Your task to perform on an android device: turn notification dots off Image 0: 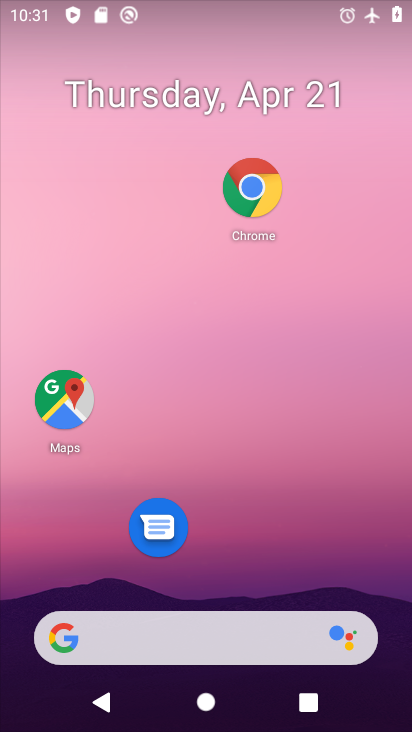
Step 0: drag from (284, 597) to (327, 148)
Your task to perform on an android device: turn notification dots off Image 1: 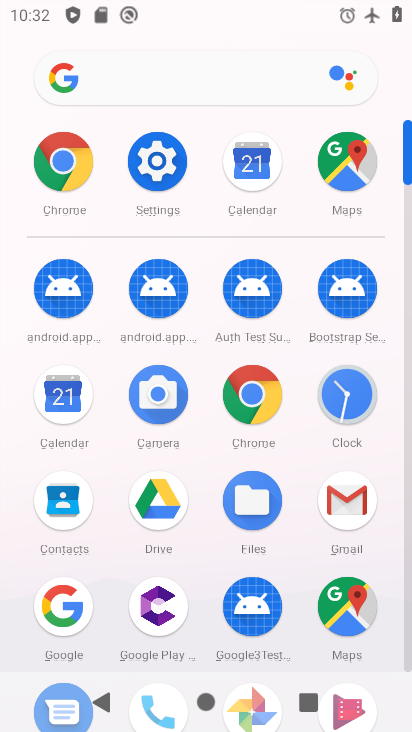
Step 1: click (150, 177)
Your task to perform on an android device: turn notification dots off Image 2: 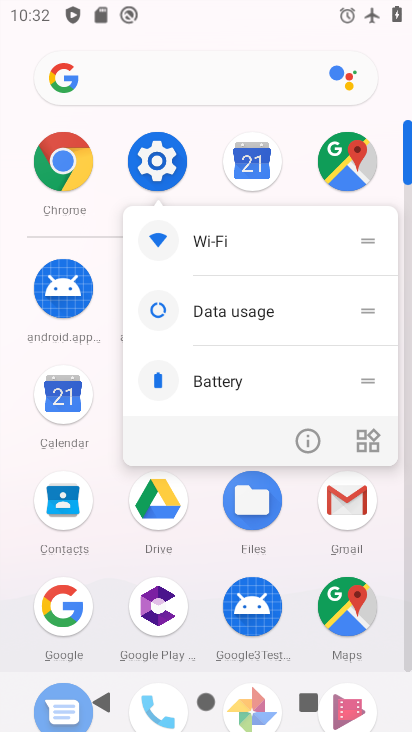
Step 2: click (150, 177)
Your task to perform on an android device: turn notification dots off Image 3: 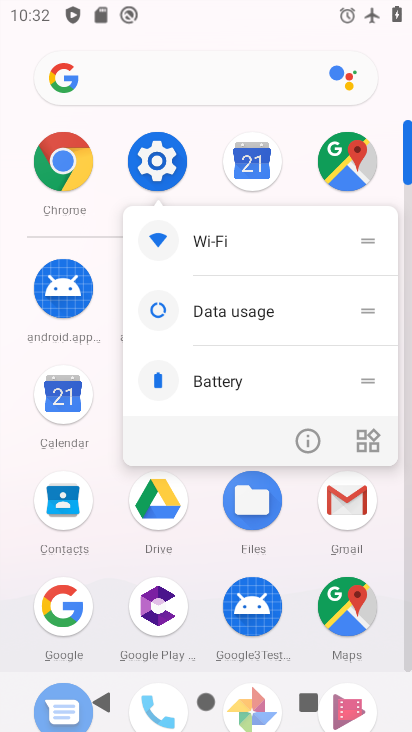
Step 3: click (172, 159)
Your task to perform on an android device: turn notification dots off Image 4: 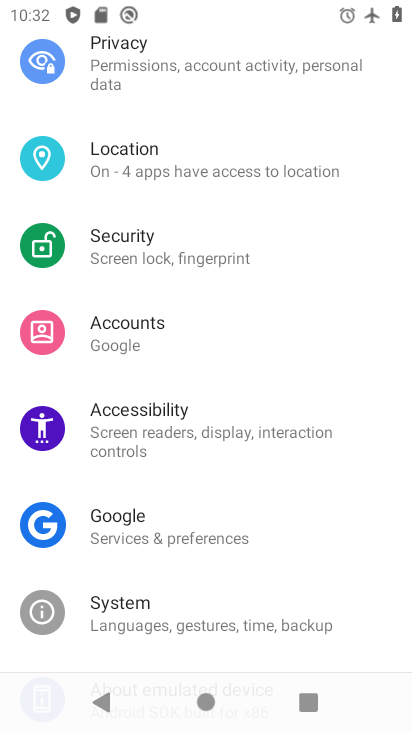
Step 4: drag from (317, 223) to (293, 511)
Your task to perform on an android device: turn notification dots off Image 5: 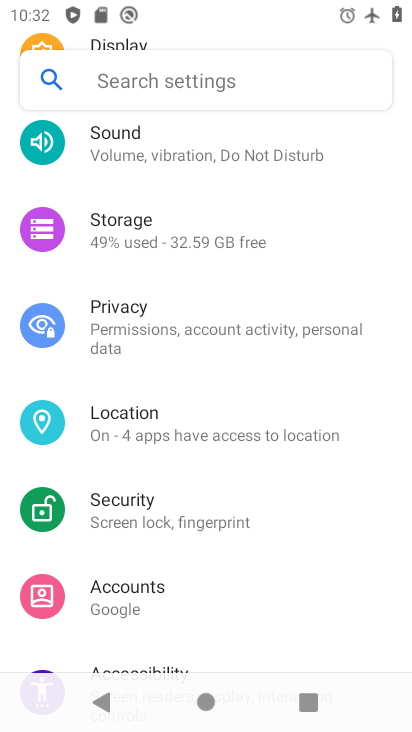
Step 5: drag from (302, 235) to (267, 471)
Your task to perform on an android device: turn notification dots off Image 6: 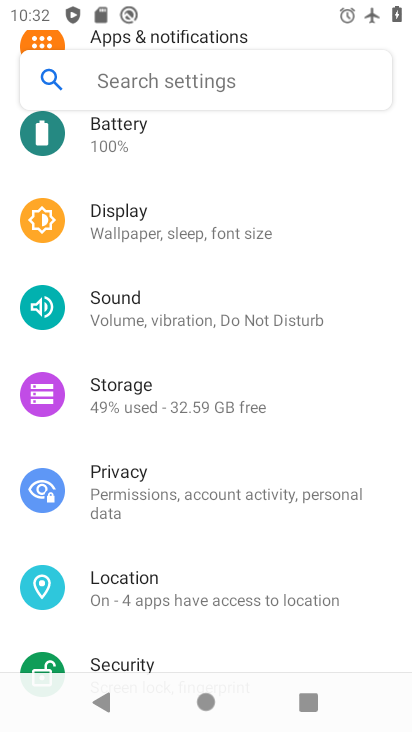
Step 6: drag from (261, 259) to (227, 493)
Your task to perform on an android device: turn notification dots off Image 7: 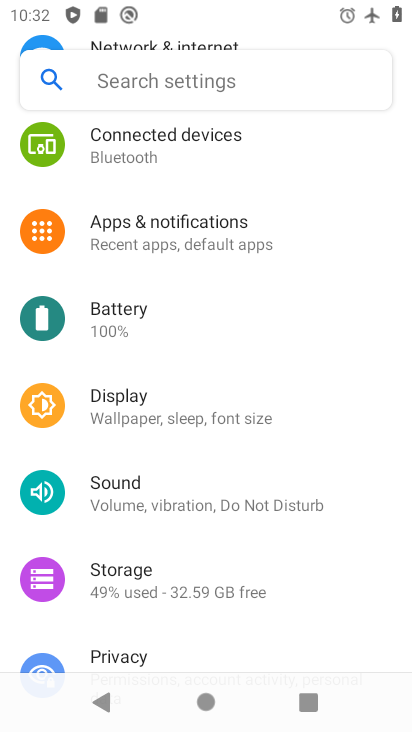
Step 7: click (290, 248)
Your task to perform on an android device: turn notification dots off Image 8: 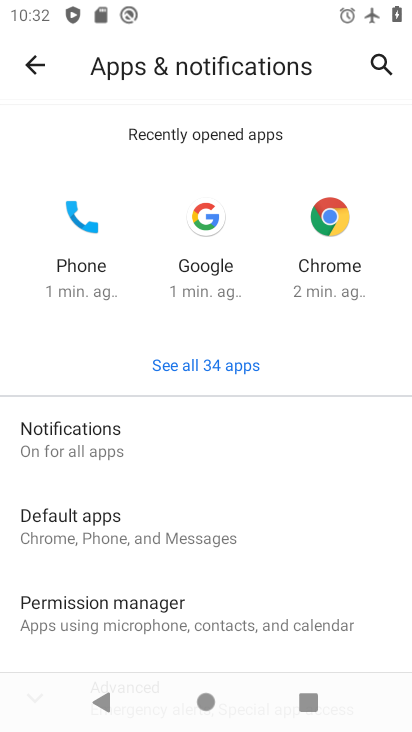
Step 8: click (183, 444)
Your task to perform on an android device: turn notification dots off Image 9: 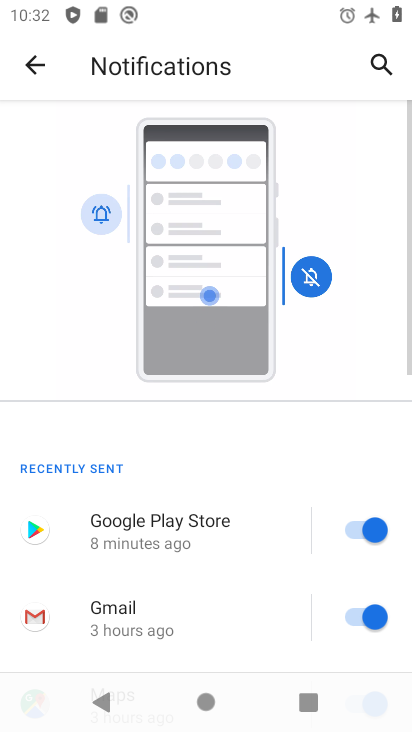
Step 9: drag from (194, 536) to (267, 182)
Your task to perform on an android device: turn notification dots off Image 10: 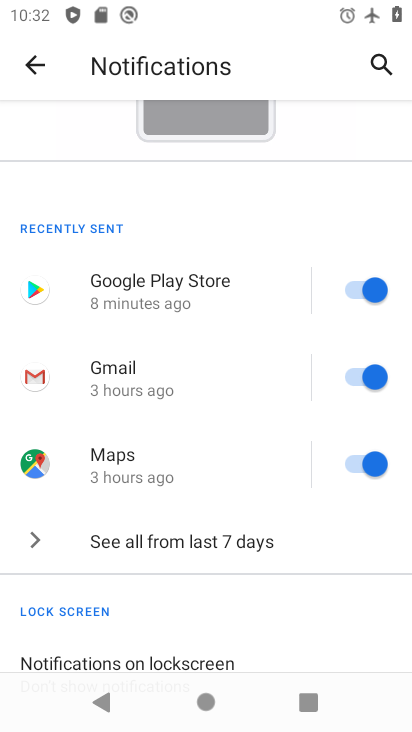
Step 10: drag from (230, 480) to (278, 202)
Your task to perform on an android device: turn notification dots off Image 11: 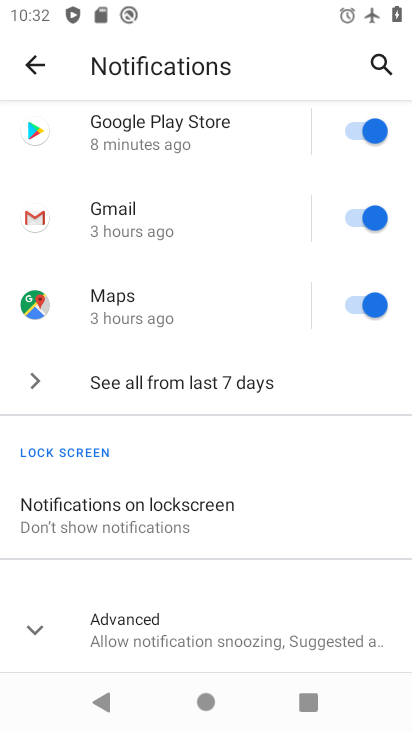
Step 11: click (238, 631)
Your task to perform on an android device: turn notification dots off Image 12: 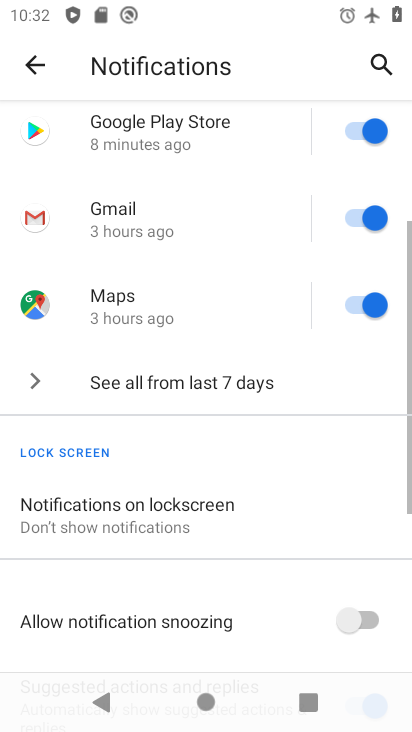
Step 12: drag from (263, 498) to (299, 247)
Your task to perform on an android device: turn notification dots off Image 13: 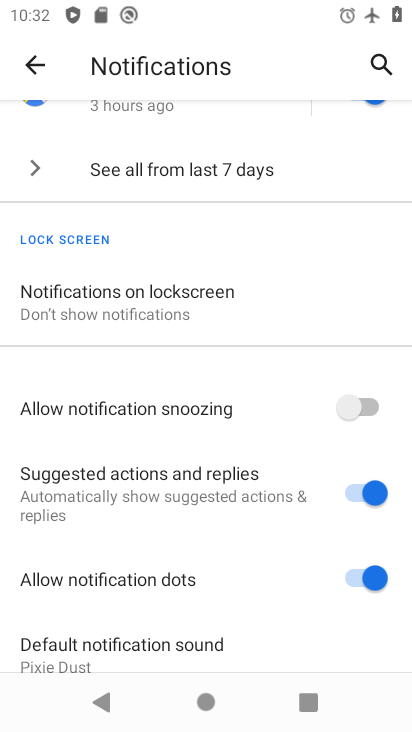
Step 13: click (335, 582)
Your task to perform on an android device: turn notification dots off Image 14: 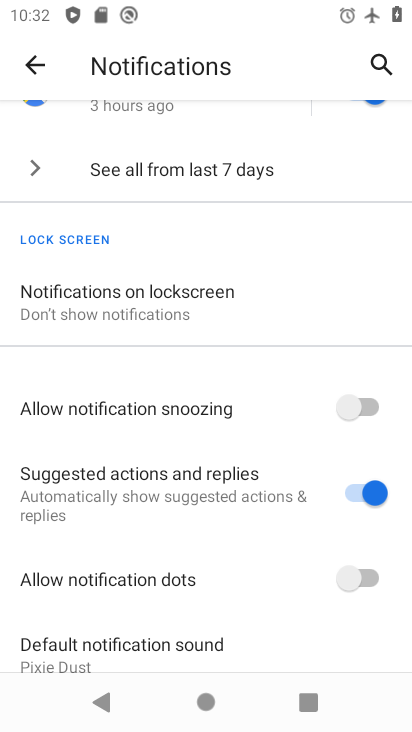
Step 14: task complete